Your task to perform on an android device: Open sound settings Image 0: 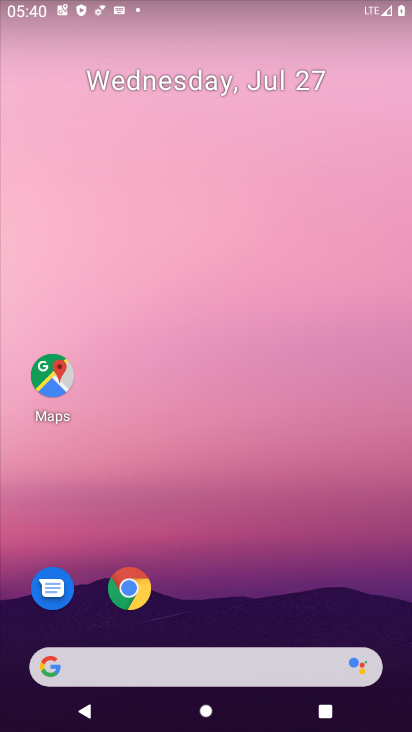
Step 0: drag from (239, 681) to (214, 0)
Your task to perform on an android device: Open sound settings Image 1: 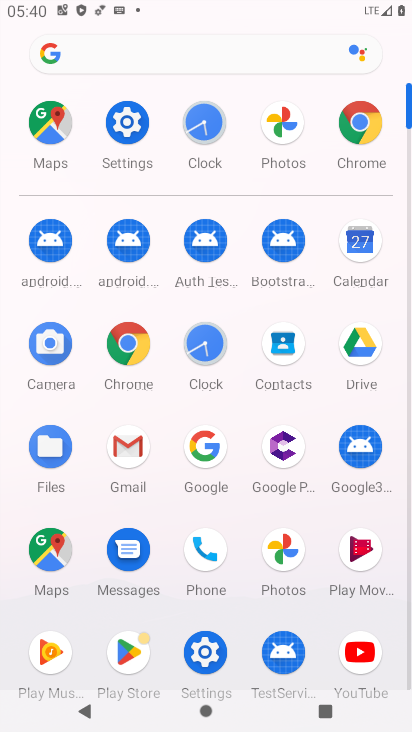
Step 1: click (126, 117)
Your task to perform on an android device: Open sound settings Image 2: 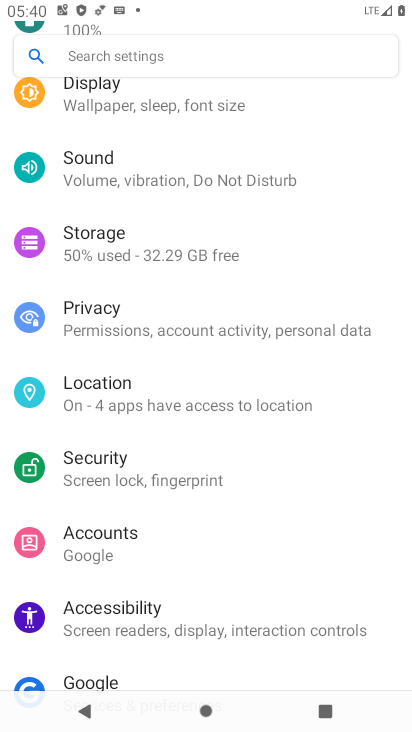
Step 2: click (108, 165)
Your task to perform on an android device: Open sound settings Image 3: 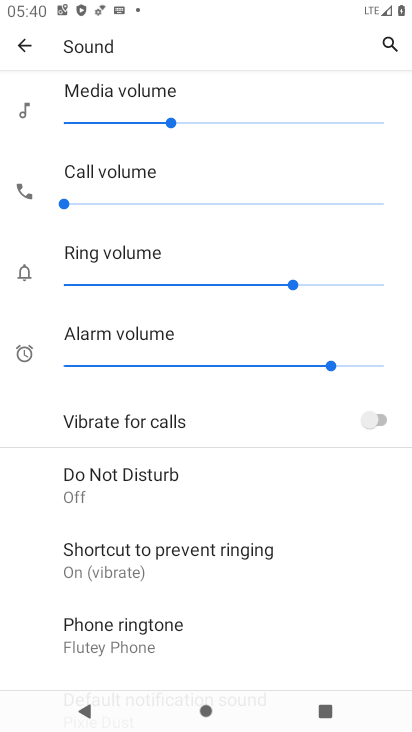
Step 3: task complete